Your task to perform on an android device: change notifications settings Image 0: 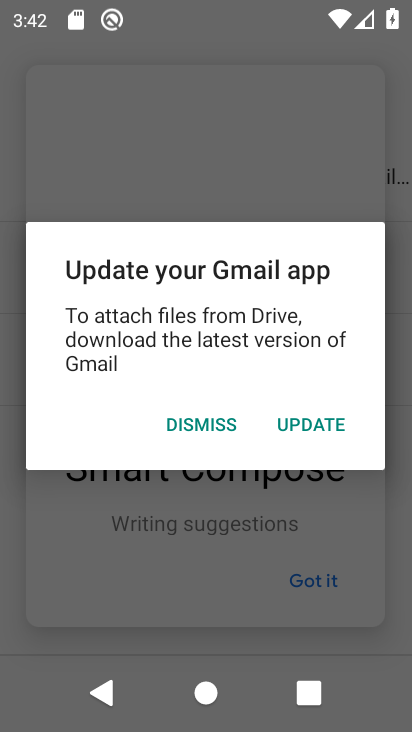
Step 0: press home button
Your task to perform on an android device: change notifications settings Image 1: 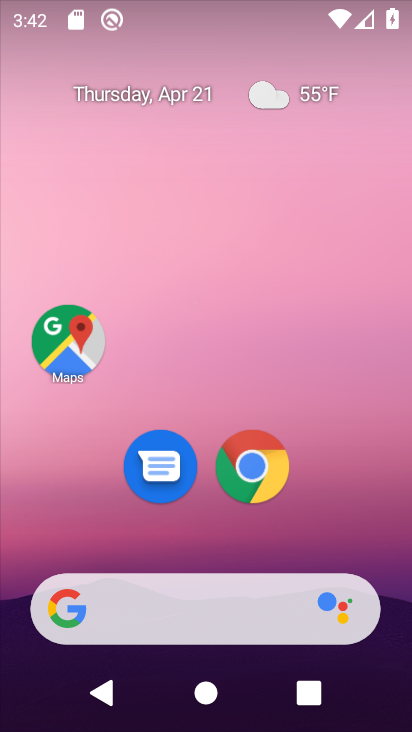
Step 1: drag from (246, 555) to (227, 50)
Your task to perform on an android device: change notifications settings Image 2: 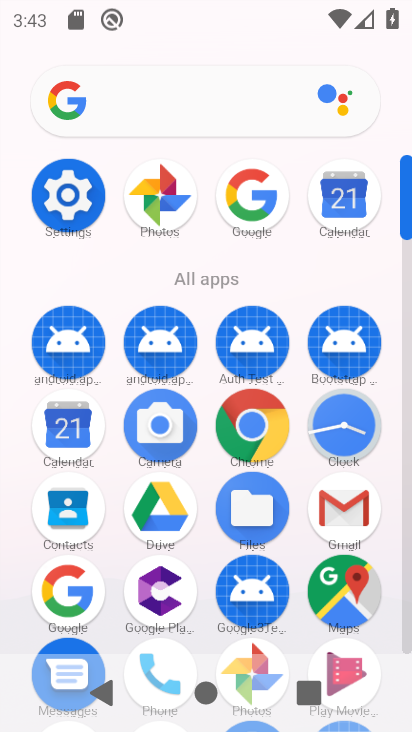
Step 2: click (89, 213)
Your task to perform on an android device: change notifications settings Image 3: 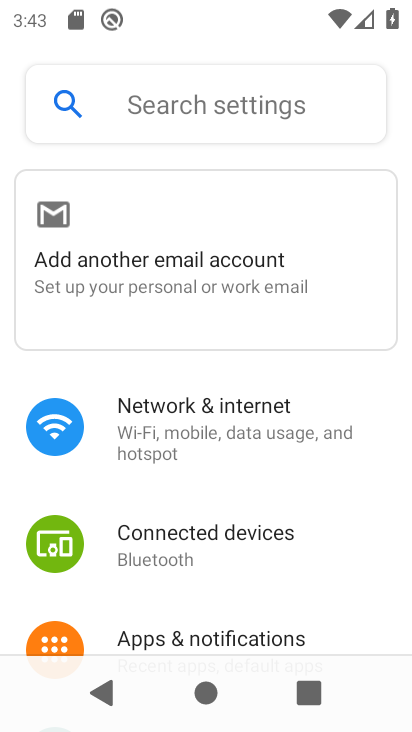
Step 3: click (290, 621)
Your task to perform on an android device: change notifications settings Image 4: 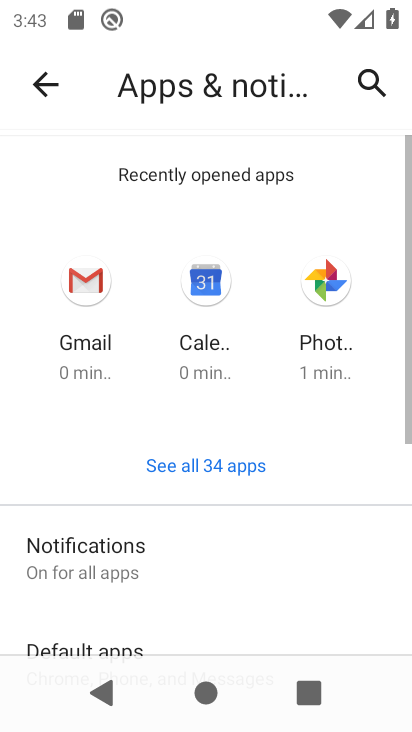
Step 4: click (172, 547)
Your task to perform on an android device: change notifications settings Image 5: 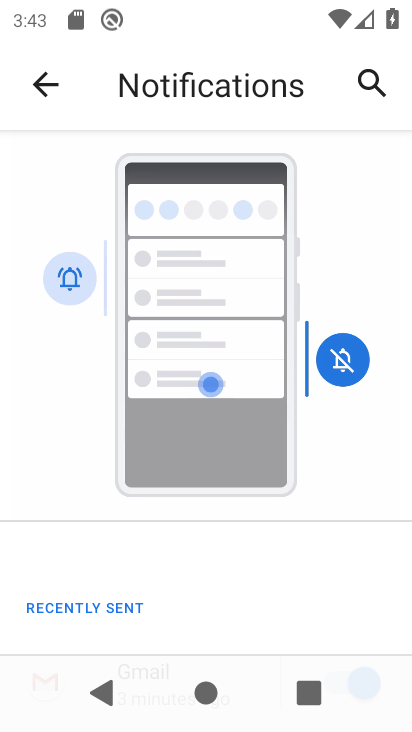
Step 5: drag from (272, 594) to (196, 22)
Your task to perform on an android device: change notifications settings Image 6: 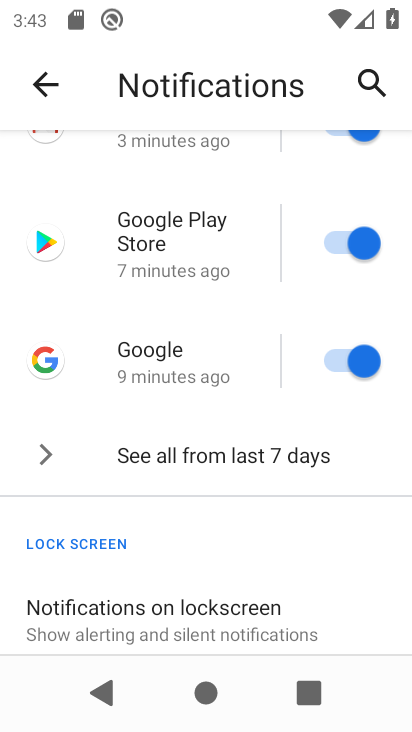
Step 6: drag from (211, 590) to (240, 105)
Your task to perform on an android device: change notifications settings Image 7: 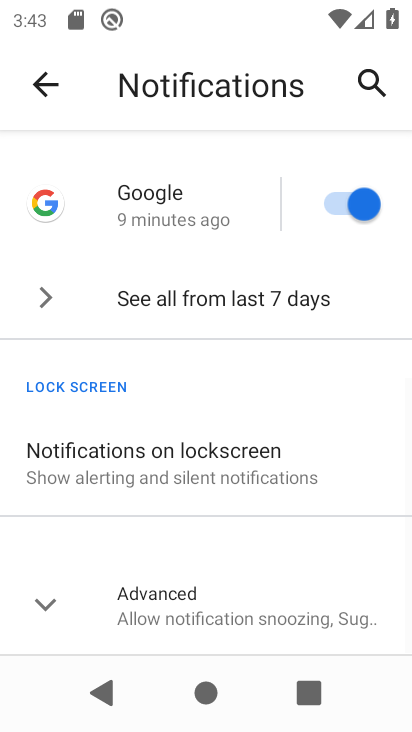
Step 7: click (210, 638)
Your task to perform on an android device: change notifications settings Image 8: 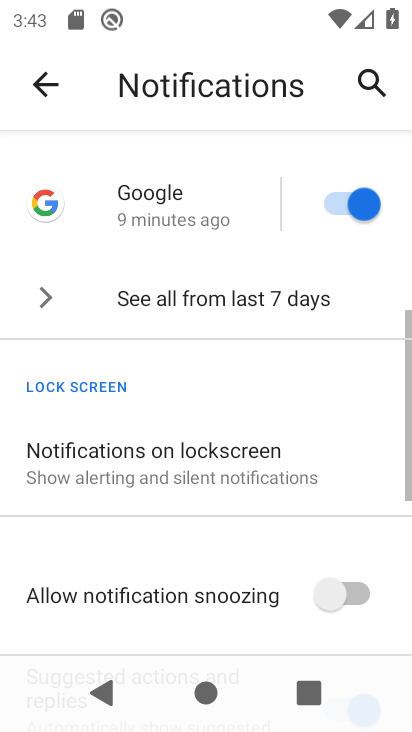
Step 8: drag from (270, 442) to (275, 8)
Your task to perform on an android device: change notifications settings Image 9: 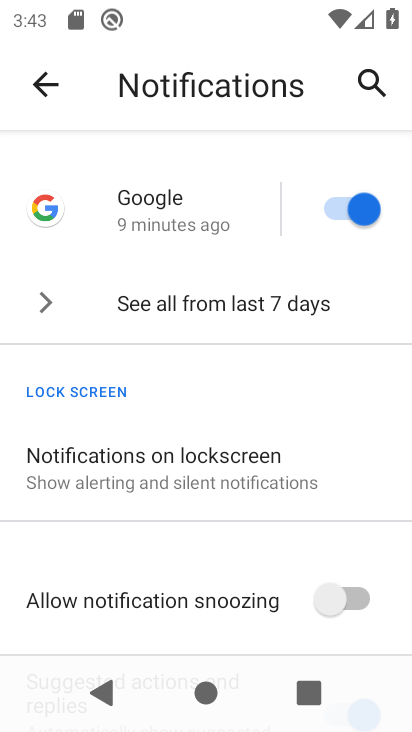
Step 9: drag from (244, 373) to (209, 27)
Your task to perform on an android device: change notifications settings Image 10: 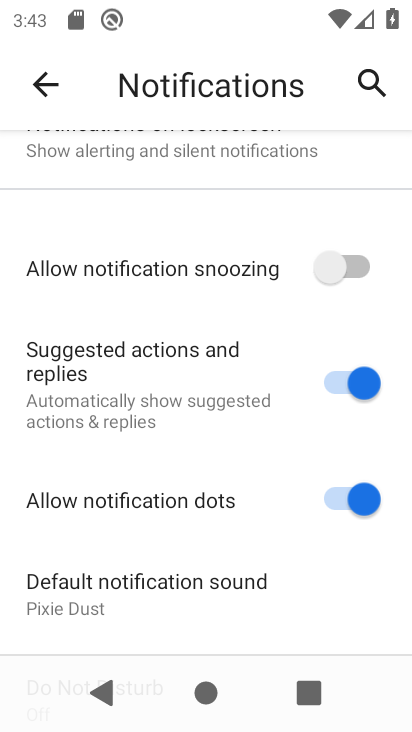
Step 10: click (322, 264)
Your task to perform on an android device: change notifications settings Image 11: 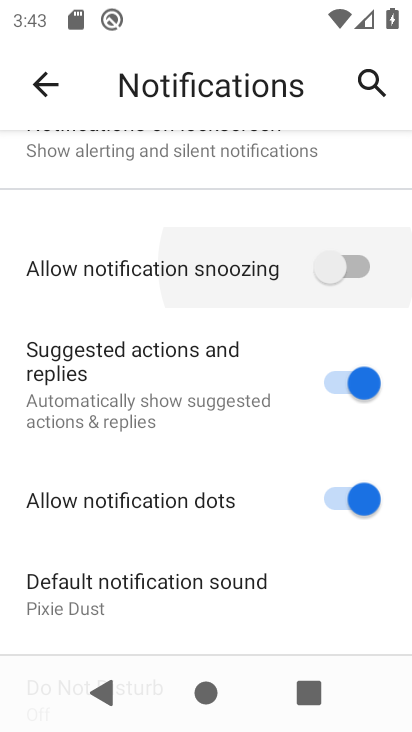
Step 11: click (375, 378)
Your task to perform on an android device: change notifications settings Image 12: 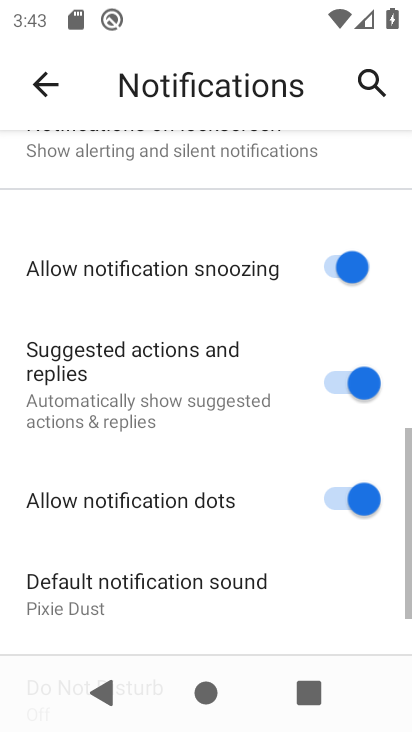
Step 12: click (363, 496)
Your task to perform on an android device: change notifications settings Image 13: 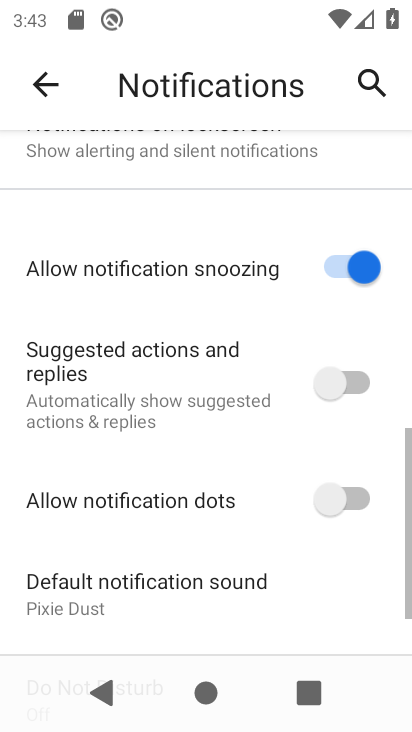
Step 13: task complete